Your task to perform on an android device: What is the recent news? Image 0: 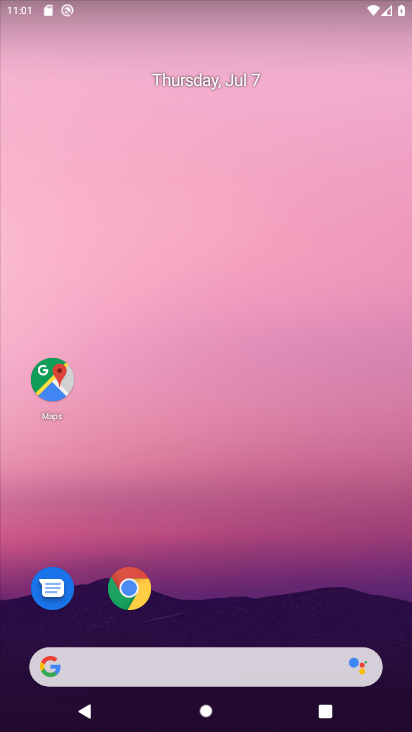
Step 0: drag from (239, 402) to (223, 101)
Your task to perform on an android device: What is the recent news? Image 1: 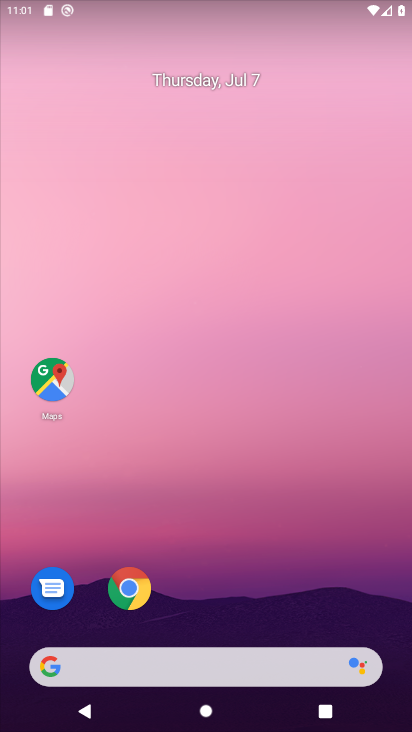
Step 1: drag from (255, 356) to (263, 154)
Your task to perform on an android device: What is the recent news? Image 2: 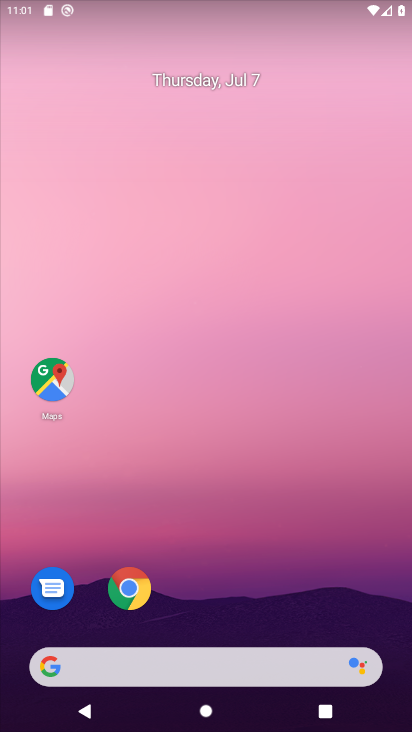
Step 2: drag from (198, 626) to (172, 8)
Your task to perform on an android device: What is the recent news? Image 3: 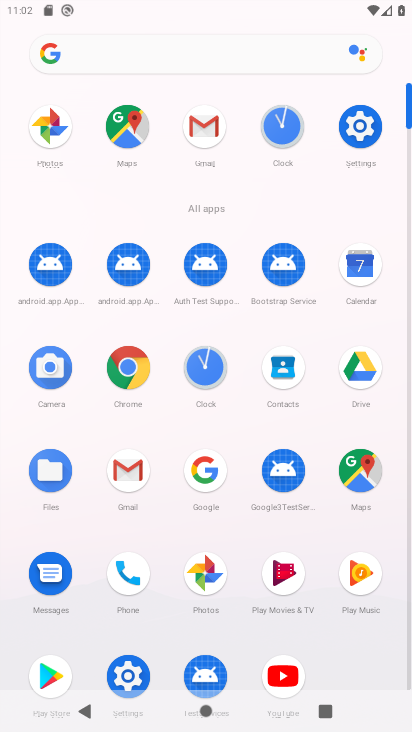
Step 3: click (208, 471)
Your task to perform on an android device: What is the recent news? Image 4: 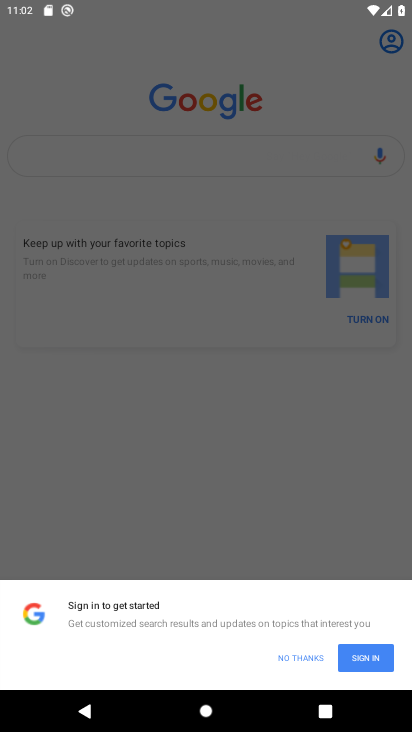
Step 4: drag from (191, 157) to (254, 141)
Your task to perform on an android device: What is the recent news? Image 5: 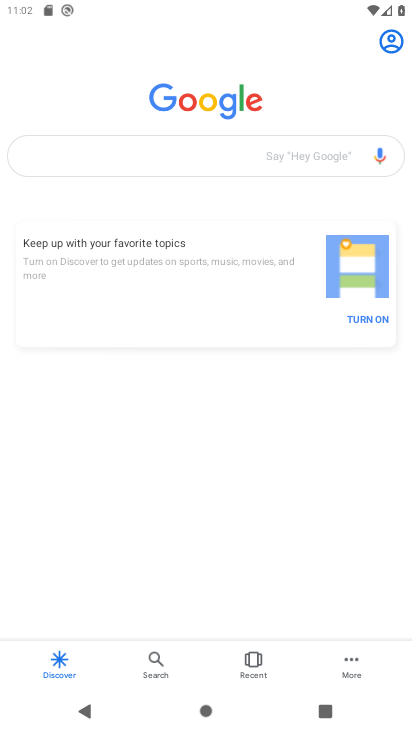
Step 5: click (158, 164)
Your task to perform on an android device: What is the recent news? Image 6: 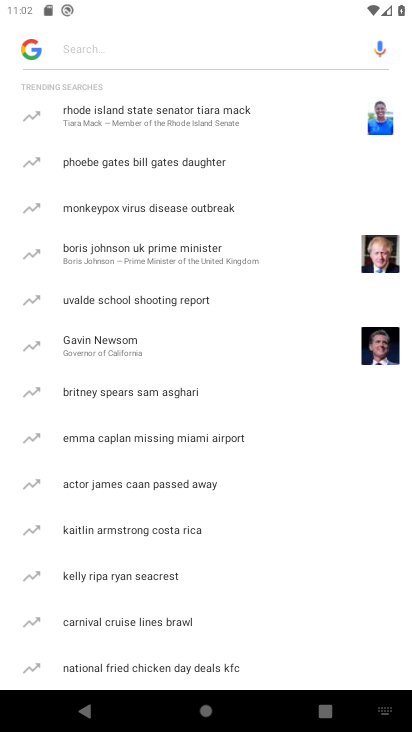
Step 6: type "recent news"
Your task to perform on an android device: What is the recent news? Image 7: 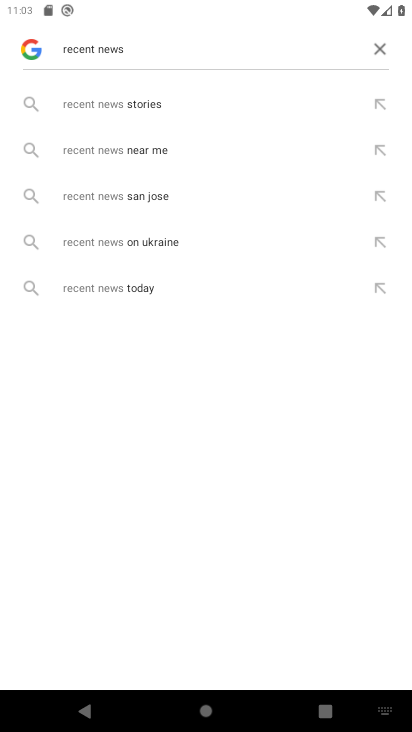
Step 7: click (136, 150)
Your task to perform on an android device: What is the recent news? Image 8: 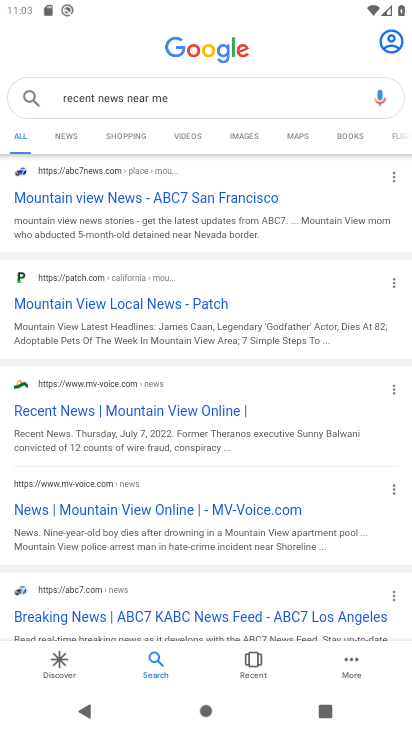
Step 8: task complete